Your task to perform on an android device: turn off location Image 0: 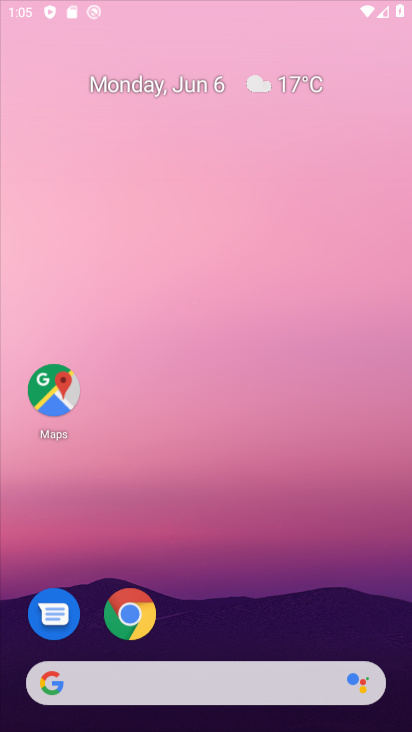
Step 0: click (235, 80)
Your task to perform on an android device: turn off location Image 1: 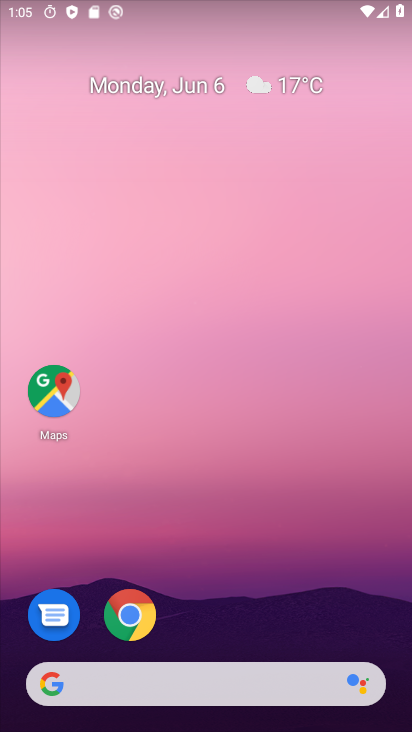
Step 1: drag from (202, 655) to (271, 30)
Your task to perform on an android device: turn off location Image 2: 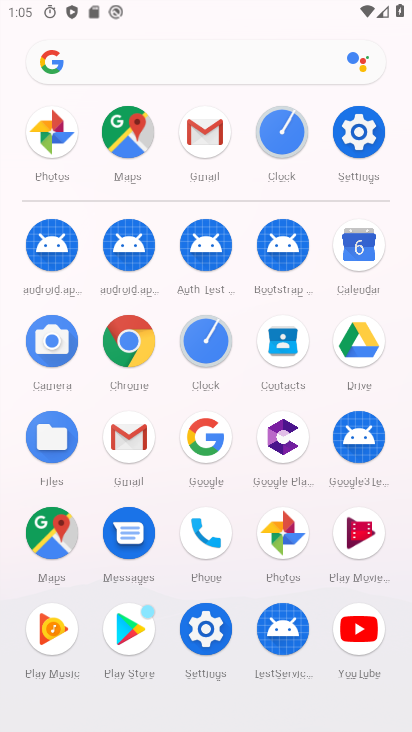
Step 2: click (376, 131)
Your task to perform on an android device: turn off location Image 3: 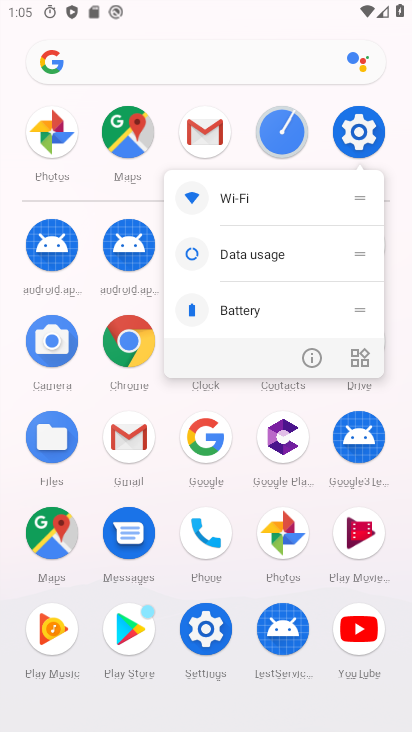
Step 3: click (308, 356)
Your task to perform on an android device: turn off location Image 4: 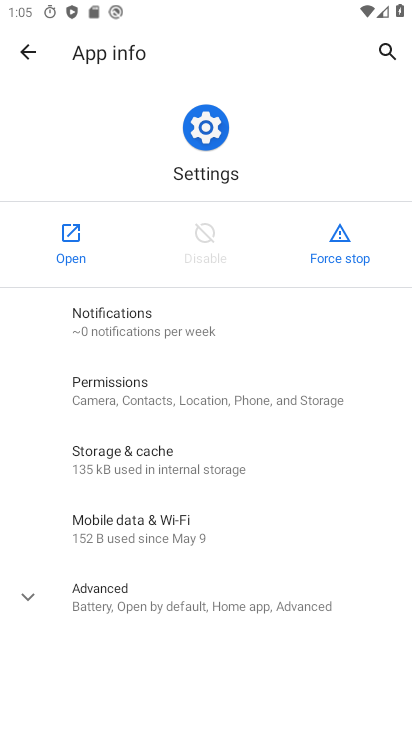
Step 4: click (77, 236)
Your task to perform on an android device: turn off location Image 5: 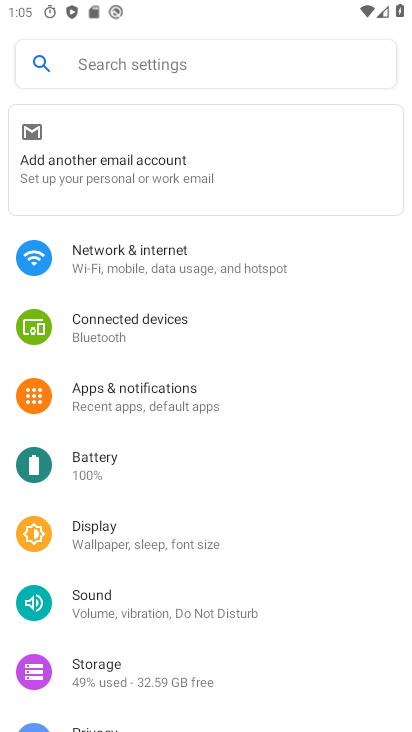
Step 5: drag from (154, 678) to (186, 345)
Your task to perform on an android device: turn off location Image 6: 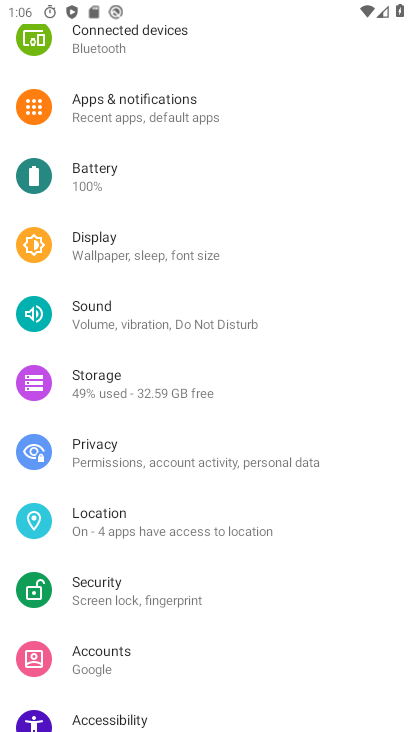
Step 6: click (147, 527)
Your task to perform on an android device: turn off location Image 7: 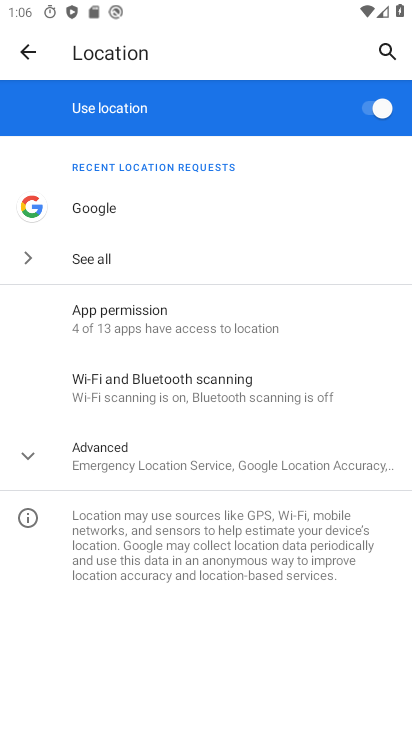
Step 7: click (373, 108)
Your task to perform on an android device: turn off location Image 8: 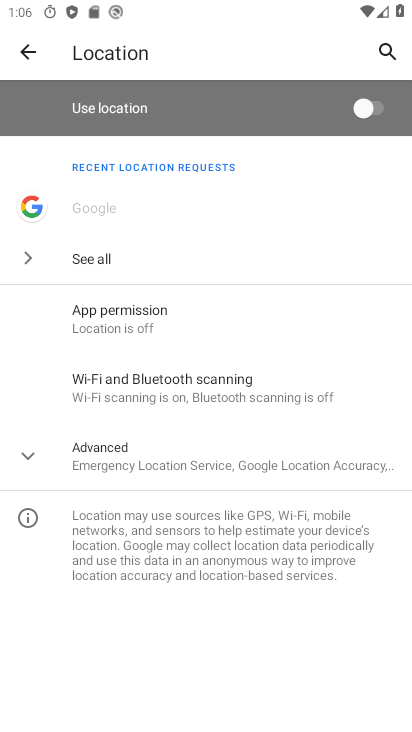
Step 8: task complete